Your task to perform on an android device: Go to Yahoo.com Image 0: 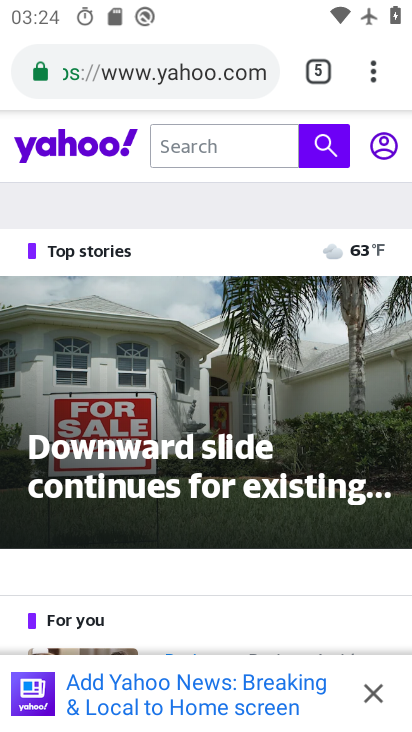
Step 0: task complete